Your task to perform on an android device: Open Google Maps Image 0: 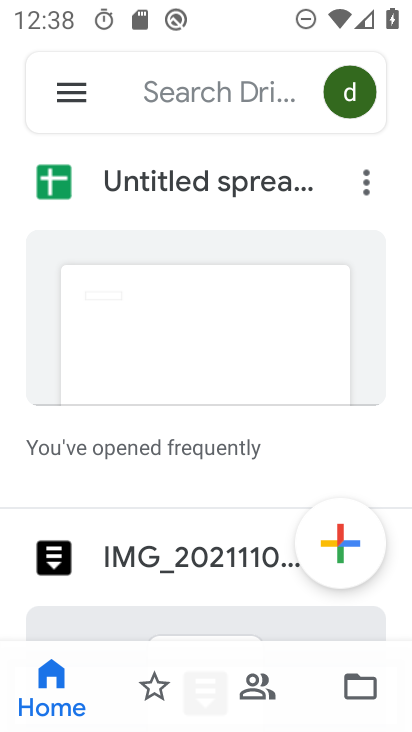
Step 0: press home button
Your task to perform on an android device: Open Google Maps Image 1: 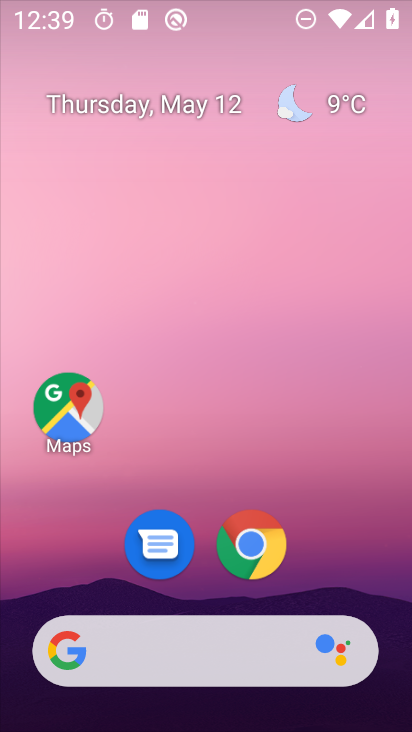
Step 1: drag from (200, 725) to (185, 200)
Your task to perform on an android device: Open Google Maps Image 2: 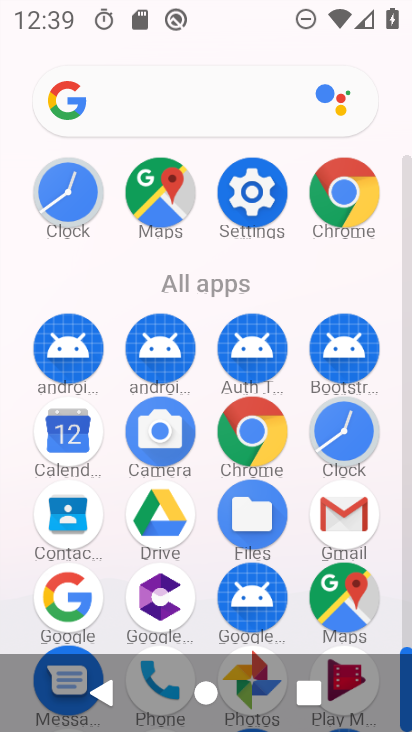
Step 2: click (330, 604)
Your task to perform on an android device: Open Google Maps Image 3: 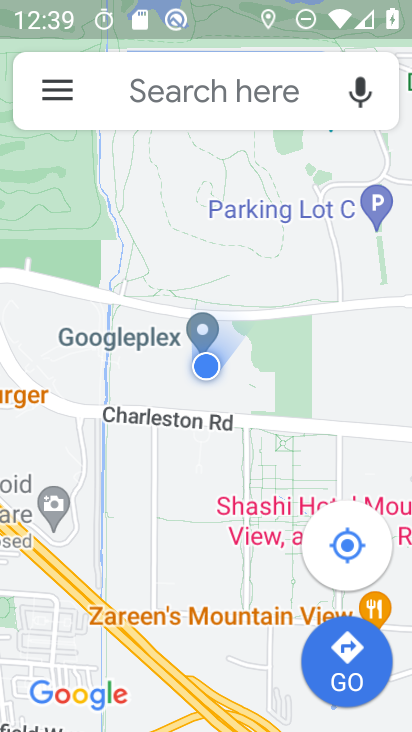
Step 3: task complete